Your task to perform on an android device: Go to network settings Image 0: 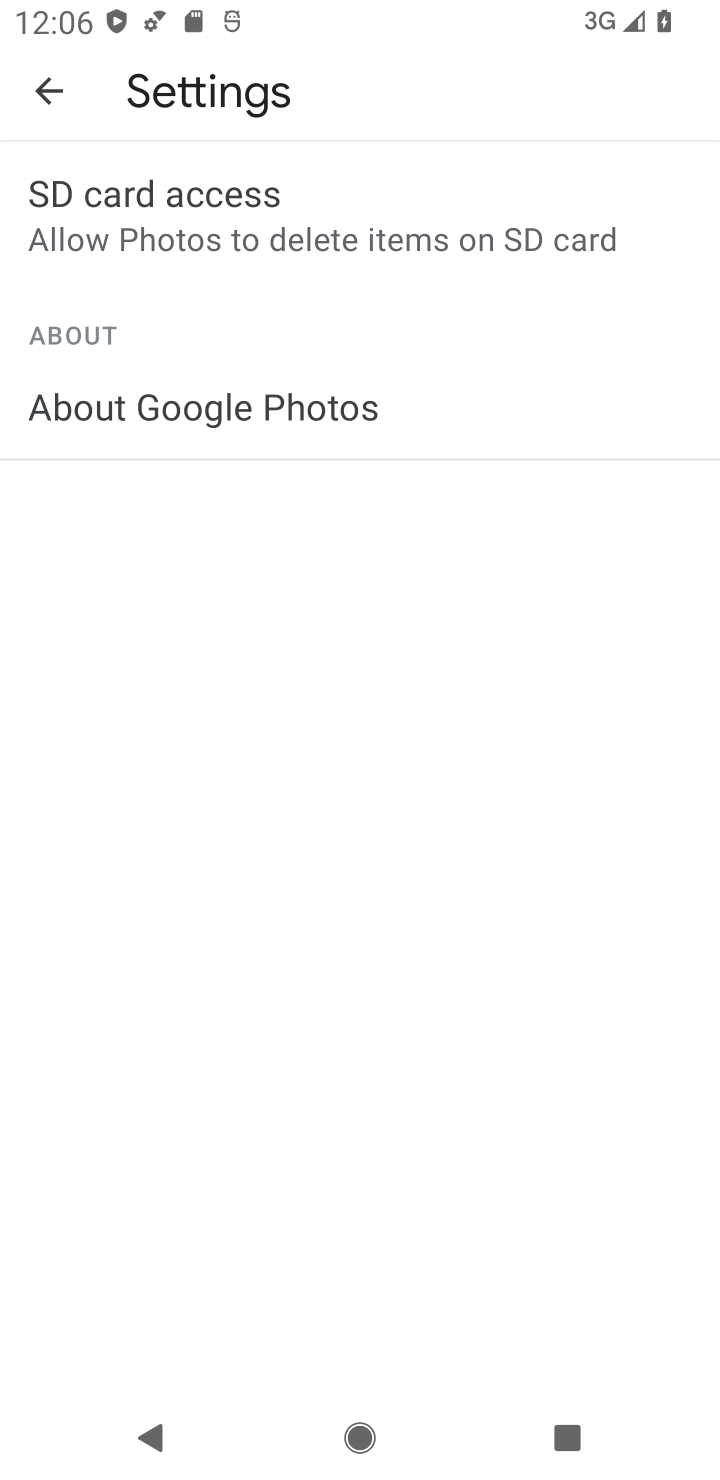
Step 0: press home button
Your task to perform on an android device: Go to network settings Image 1: 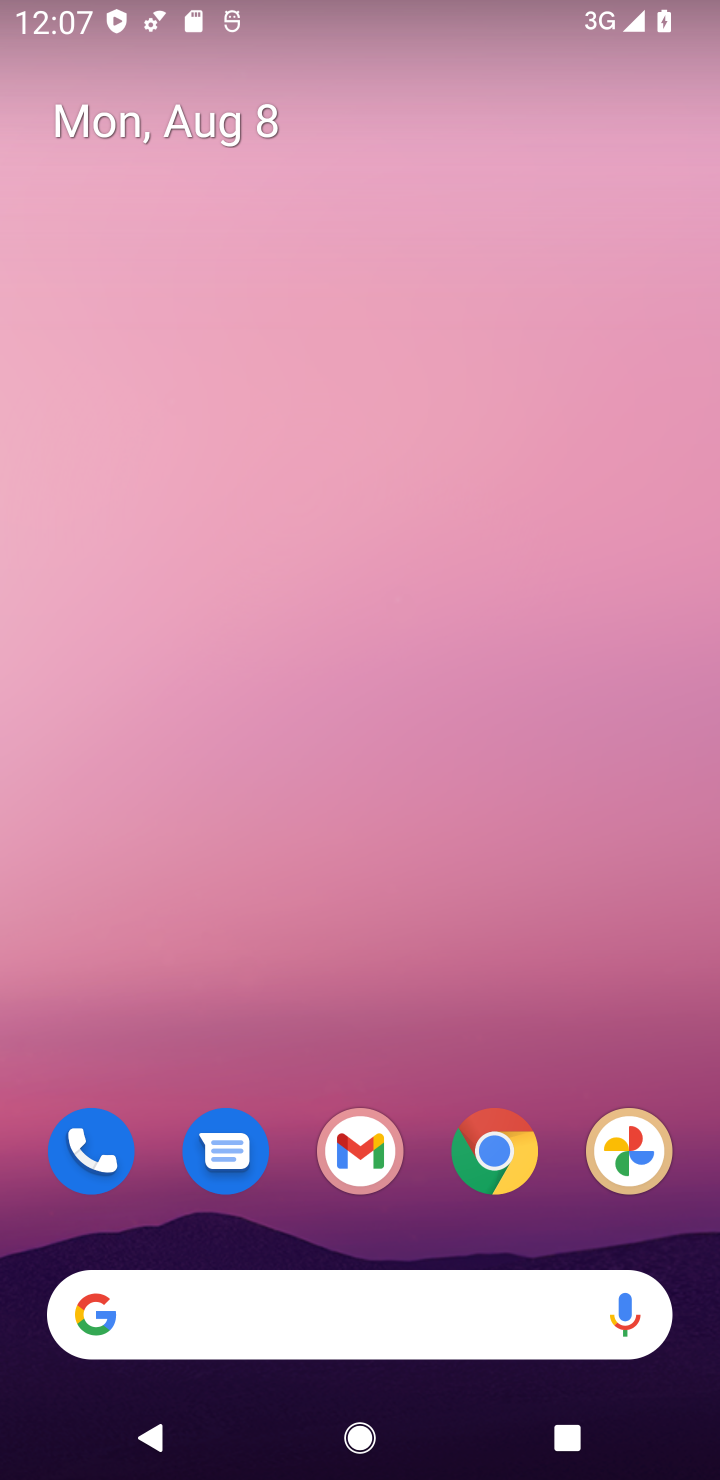
Step 1: drag from (351, 999) to (257, 377)
Your task to perform on an android device: Go to network settings Image 2: 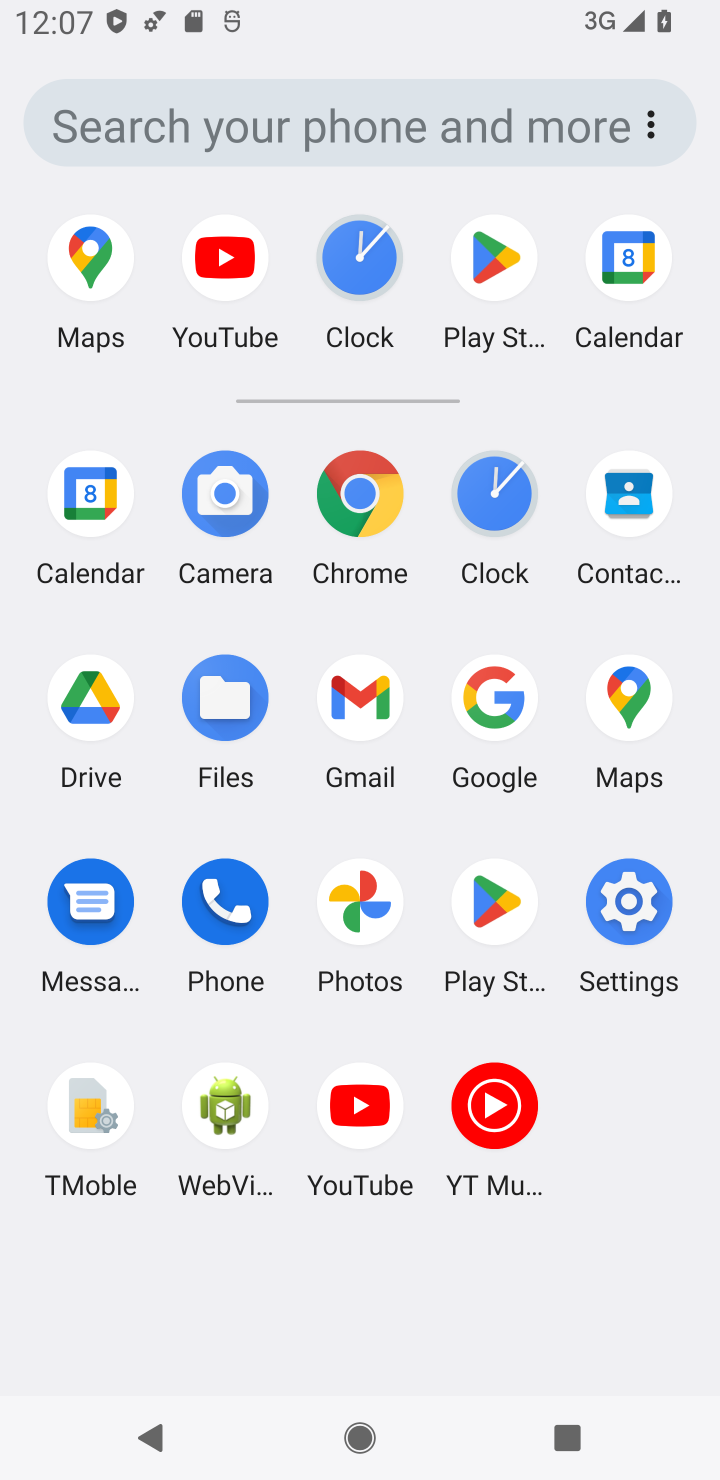
Step 2: click (654, 916)
Your task to perform on an android device: Go to network settings Image 3: 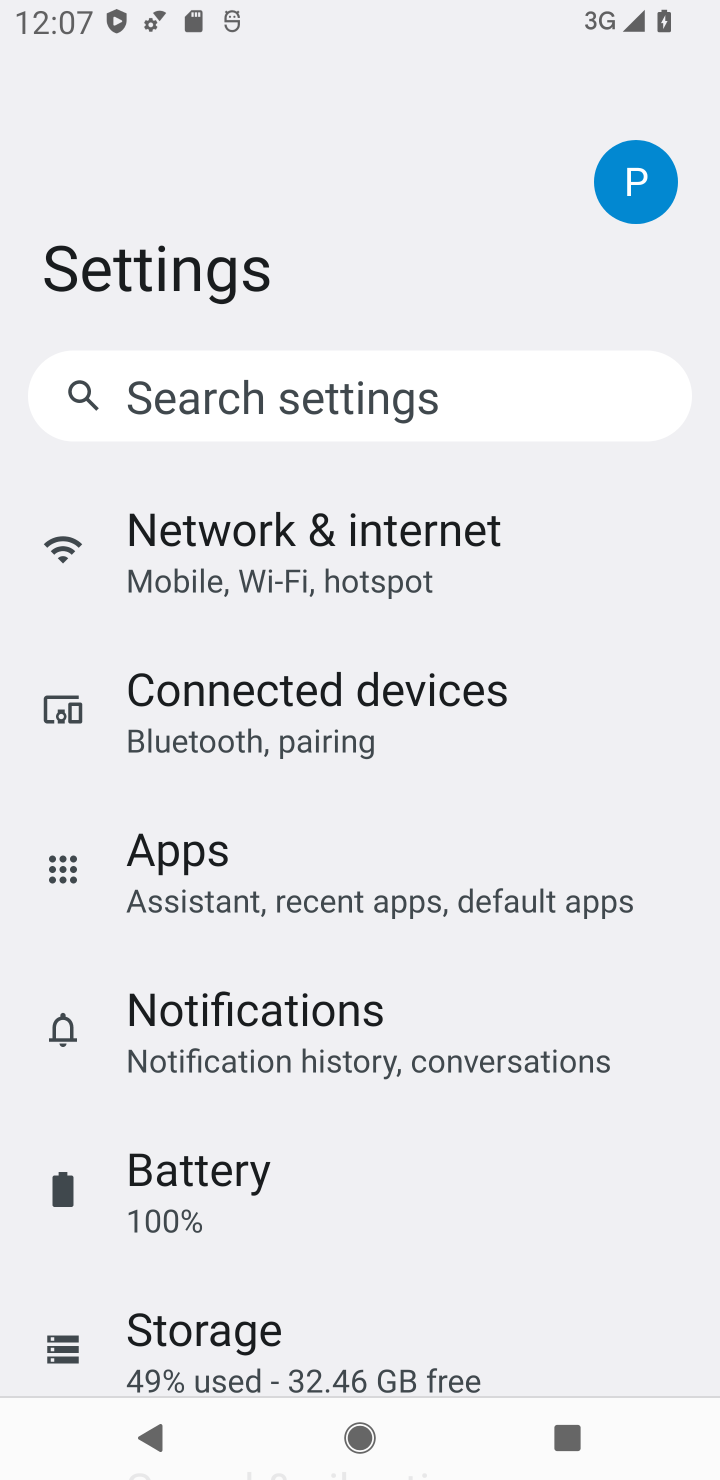
Step 3: click (217, 536)
Your task to perform on an android device: Go to network settings Image 4: 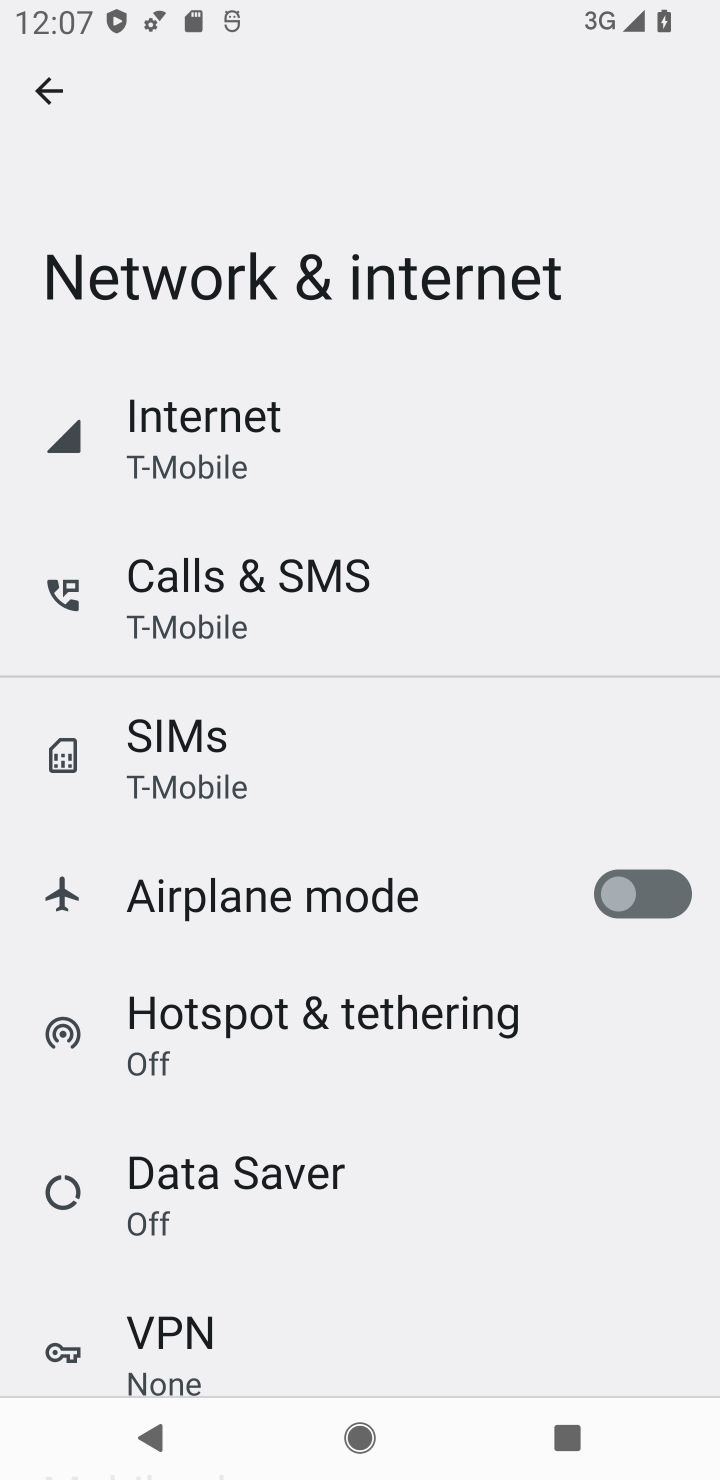
Step 4: click (252, 415)
Your task to perform on an android device: Go to network settings Image 5: 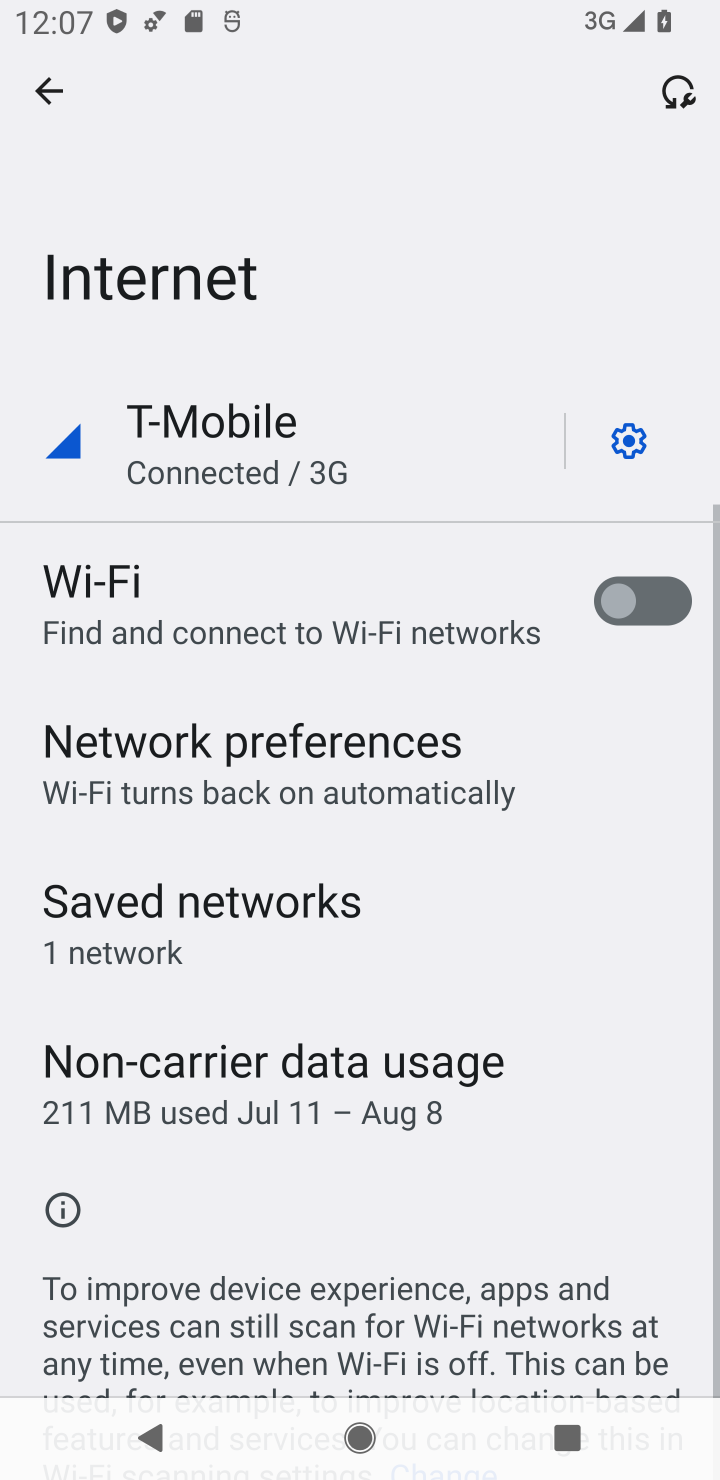
Step 5: task complete